Your task to perform on an android device: find which apps use the phone's location Image 0: 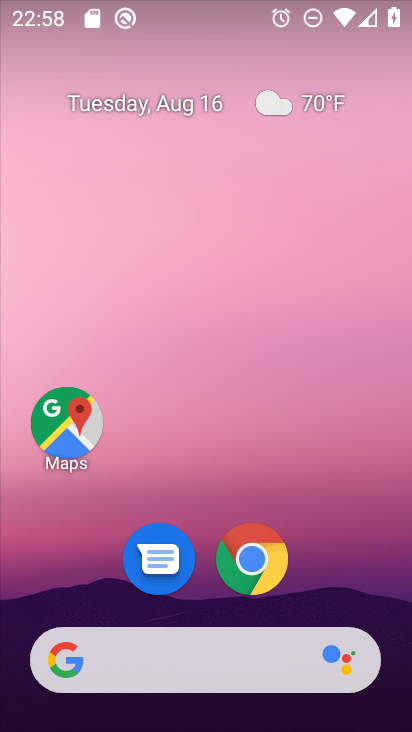
Step 0: drag from (210, 672) to (278, 77)
Your task to perform on an android device: find which apps use the phone's location Image 1: 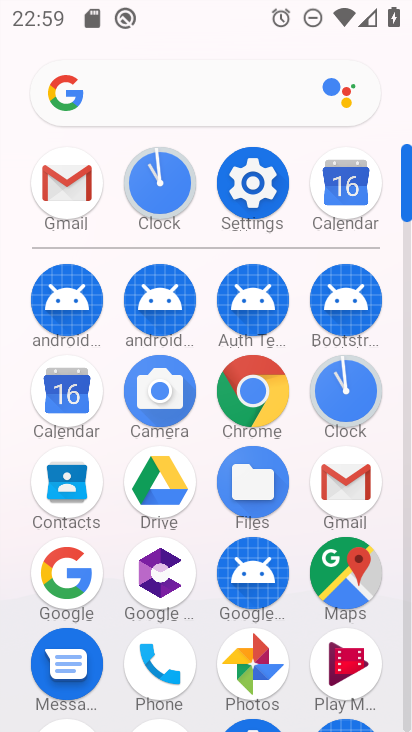
Step 1: click (249, 182)
Your task to perform on an android device: find which apps use the phone's location Image 2: 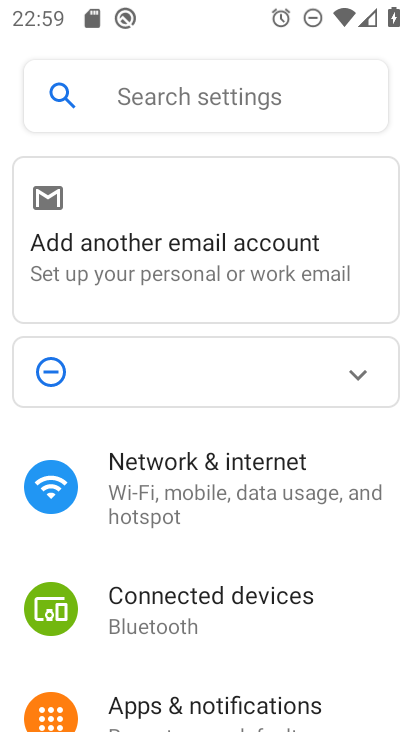
Step 2: drag from (177, 577) to (240, 423)
Your task to perform on an android device: find which apps use the phone's location Image 3: 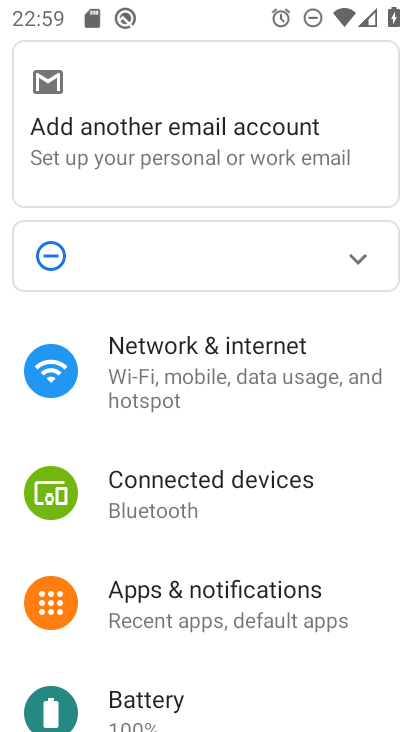
Step 3: drag from (180, 564) to (235, 432)
Your task to perform on an android device: find which apps use the phone's location Image 4: 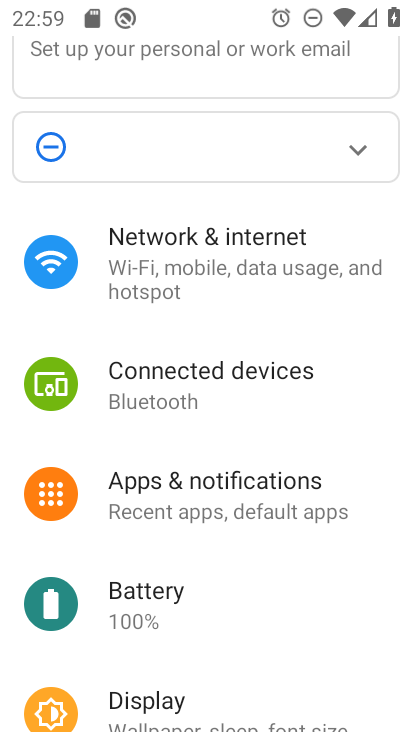
Step 4: drag from (185, 548) to (284, 432)
Your task to perform on an android device: find which apps use the phone's location Image 5: 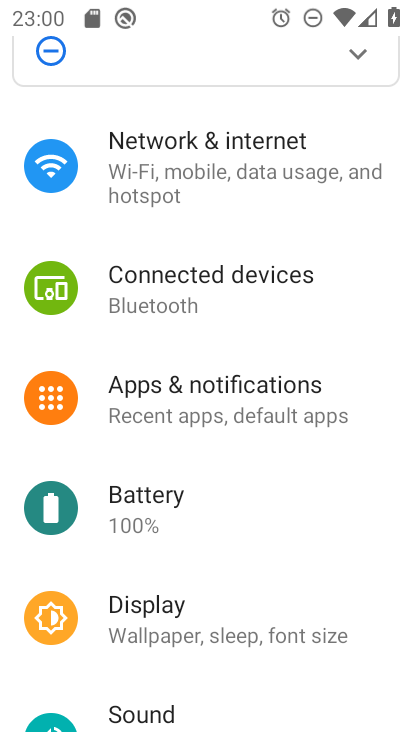
Step 5: drag from (147, 571) to (200, 466)
Your task to perform on an android device: find which apps use the phone's location Image 6: 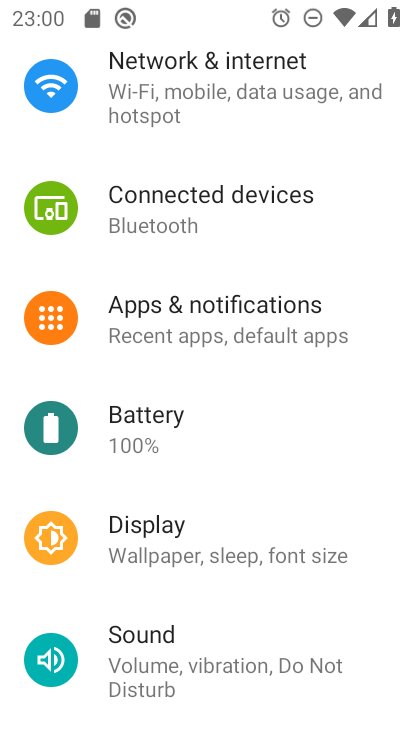
Step 6: drag from (156, 586) to (237, 485)
Your task to perform on an android device: find which apps use the phone's location Image 7: 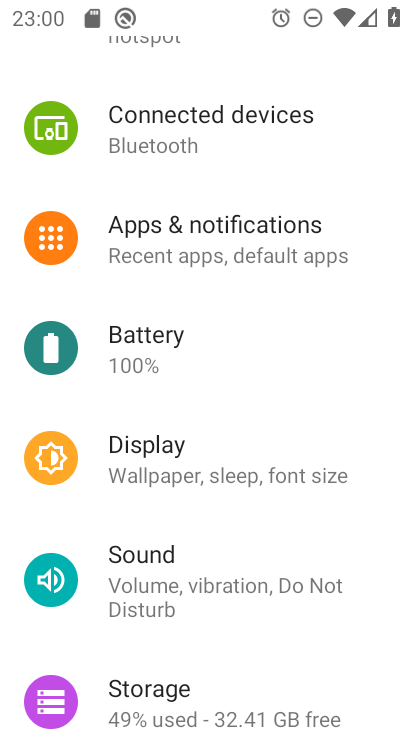
Step 7: drag from (176, 624) to (261, 483)
Your task to perform on an android device: find which apps use the phone's location Image 8: 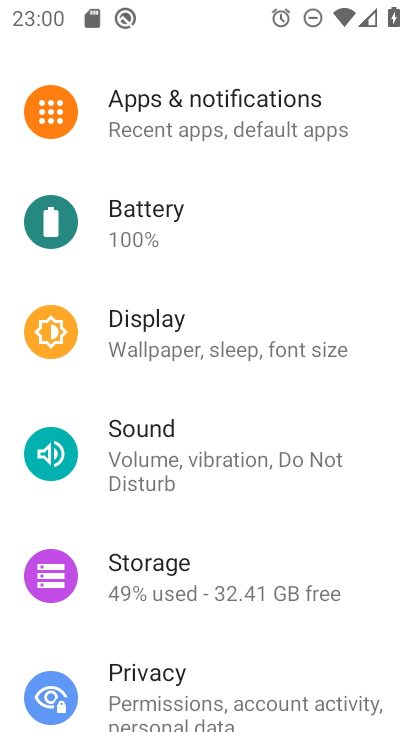
Step 8: drag from (162, 617) to (268, 488)
Your task to perform on an android device: find which apps use the phone's location Image 9: 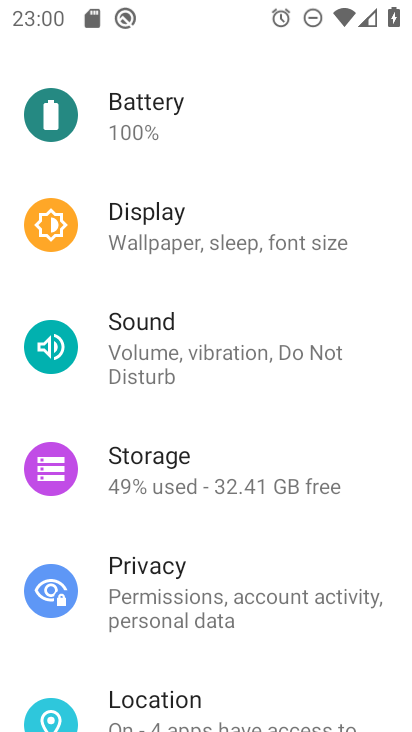
Step 9: drag from (180, 648) to (284, 509)
Your task to perform on an android device: find which apps use the phone's location Image 10: 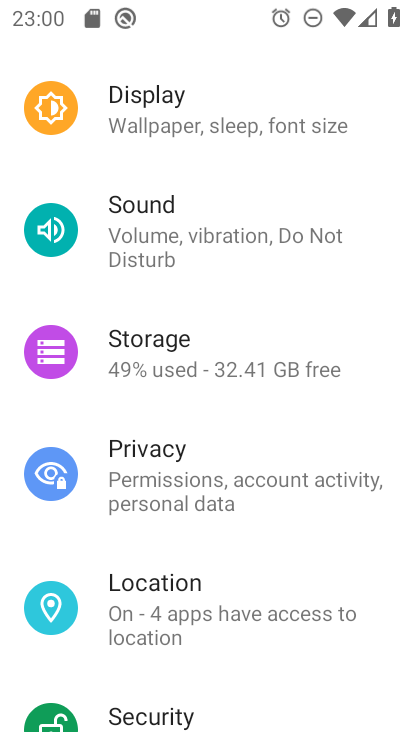
Step 10: click (174, 613)
Your task to perform on an android device: find which apps use the phone's location Image 11: 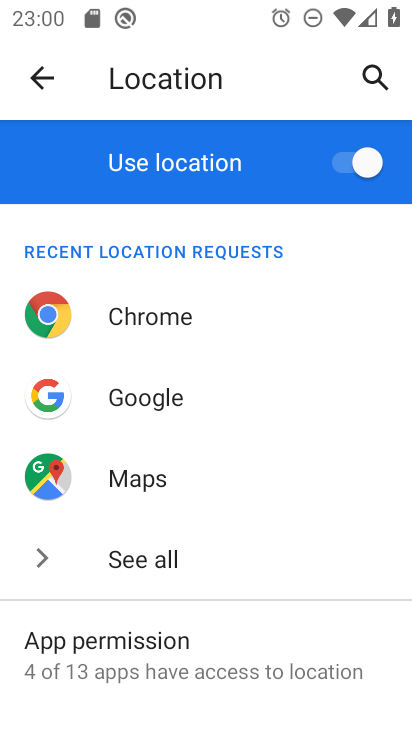
Step 11: drag from (170, 662) to (291, 527)
Your task to perform on an android device: find which apps use the phone's location Image 12: 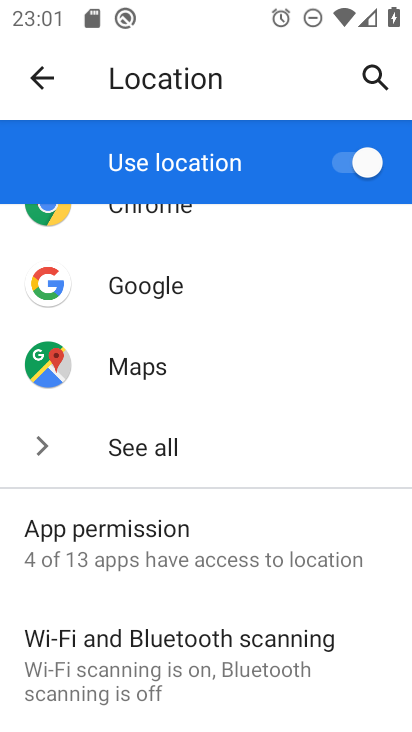
Step 12: click (219, 561)
Your task to perform on an android device: find which apps use the phone's location Image 13: 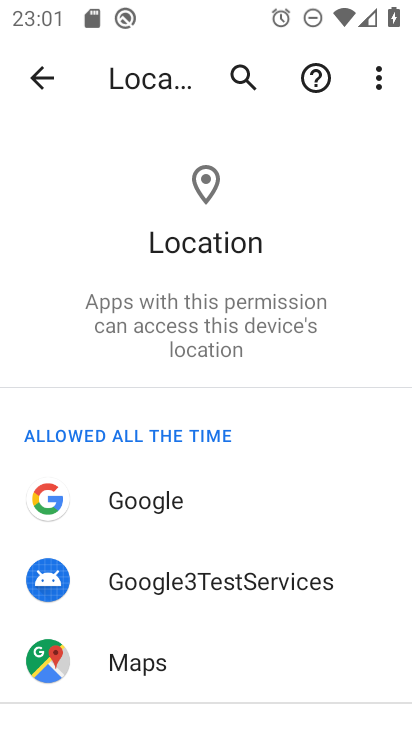
Step 13: click (150, 662)
Your task to perform on an android device: find which apps use the phone's location Image 14: 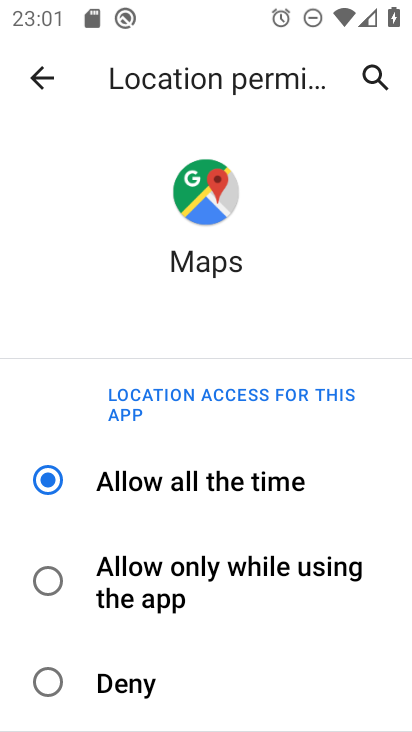
Step 14: task complete